Your task to perform on an android device: Open Google Image 0: 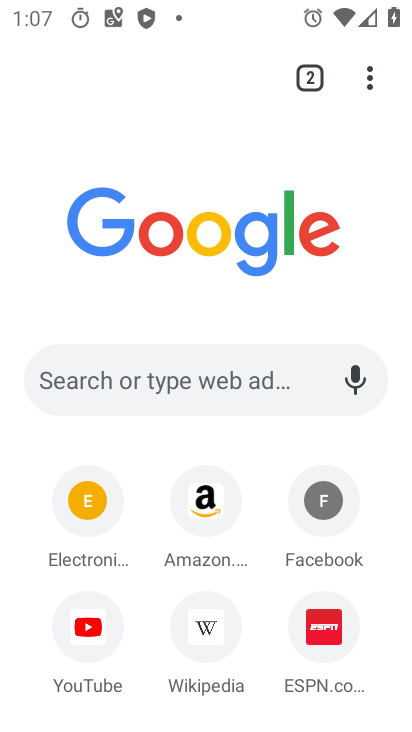
Step 0: press back button
Your task to perform on an android device: Open Google Image 1: 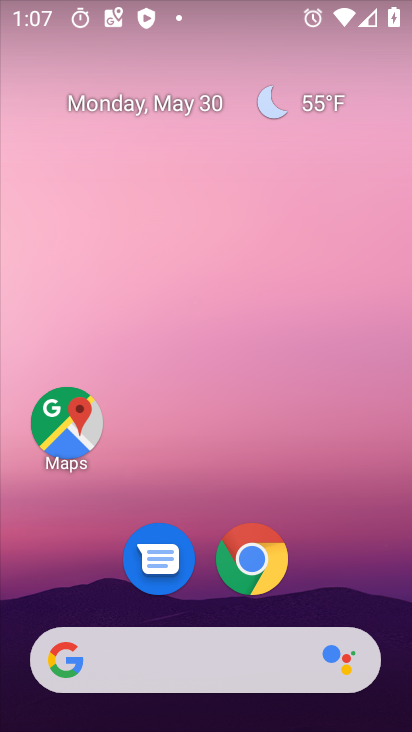
Step 1: drag from (188, 511) to (290, 31)
Your task to perform on an android device: Open Google Image 2: 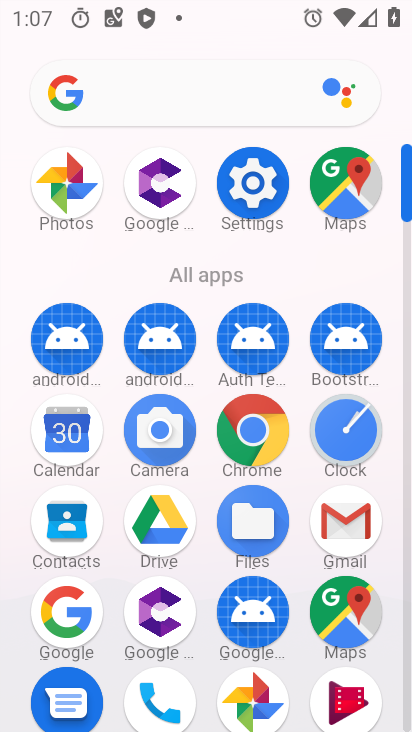
Step 2: click (67, 617)
Your task to perform on an android device: Open Google Image 3: 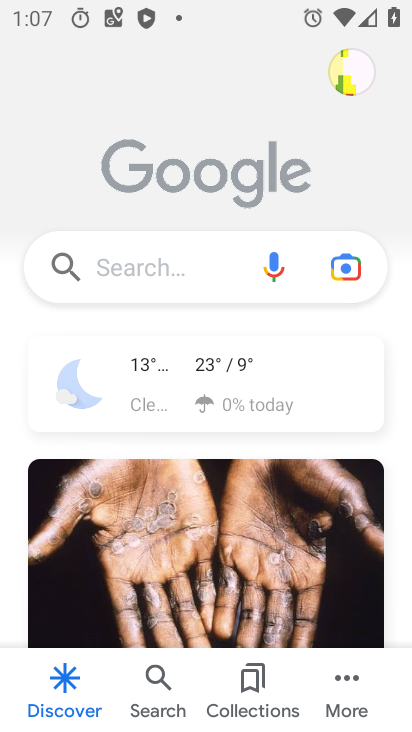
Step 3: task complete